Your task to perform on an android device: Is it going to rain today? Image 0: 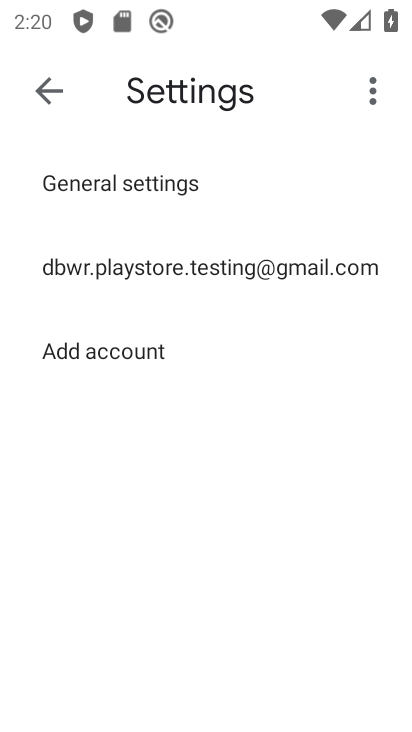
Step 0: press home button
Your task to perform on an android device: Is it going to rain today? Image 1: 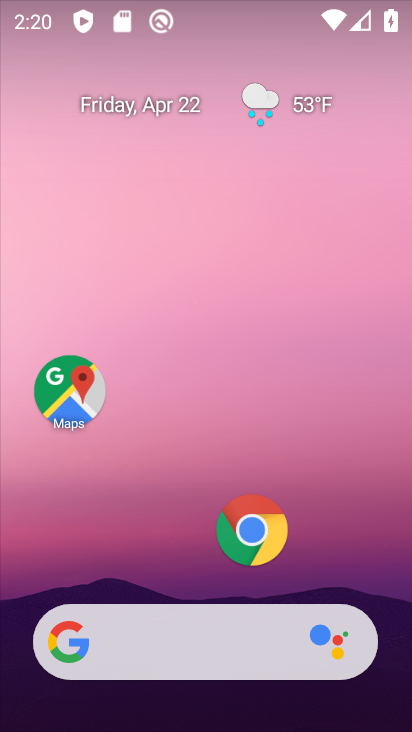
Step 1: click (270, 95)
Your task to perform on an android device: Is it going to rain today? Image 2: 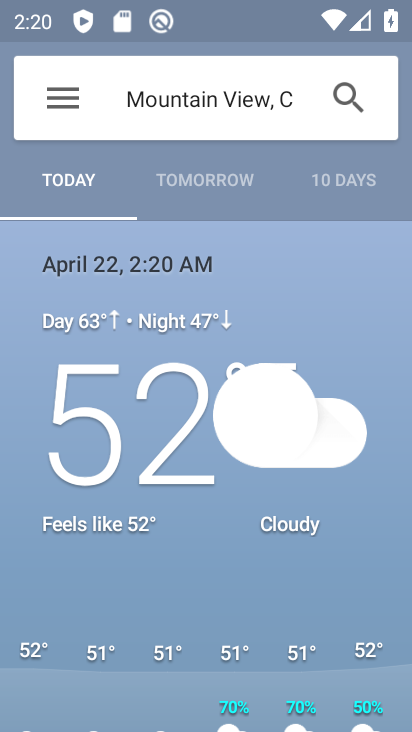
Step 2: task complete